Your task to perform on an android device: Do I have any events this weekend? Image 0: 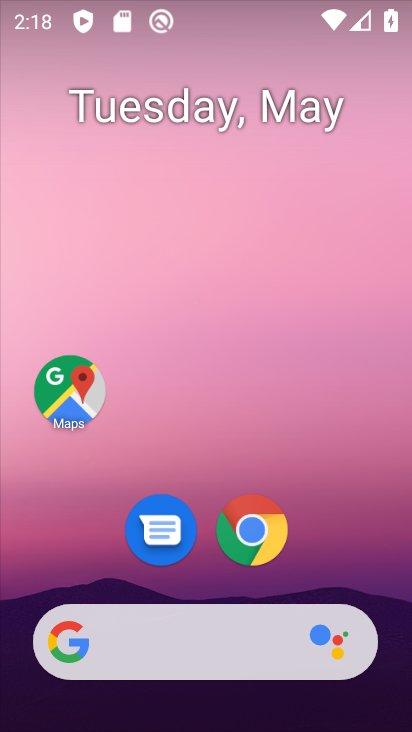
Step 0: drag from (65, 559) to (278, 163)
Your task to perform on an android device: Do I have any events this weekend? Image 1: 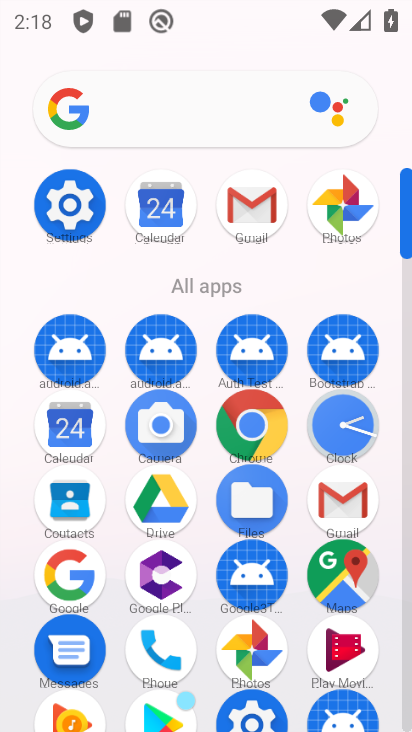
Step 1: click (73, 431)
Your task to perform on an android device: Do I have any events this weekend? Image 2: 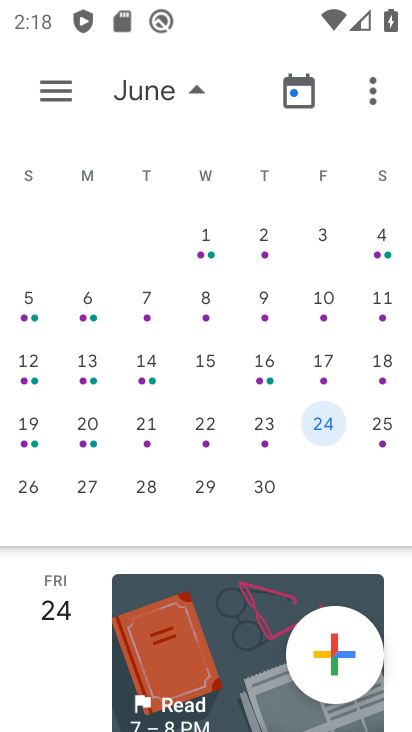
Step 2: drag from (183, 342) to (393, 353)
Your task to perform on an android device: Do I have any events this weekend? Image 3: 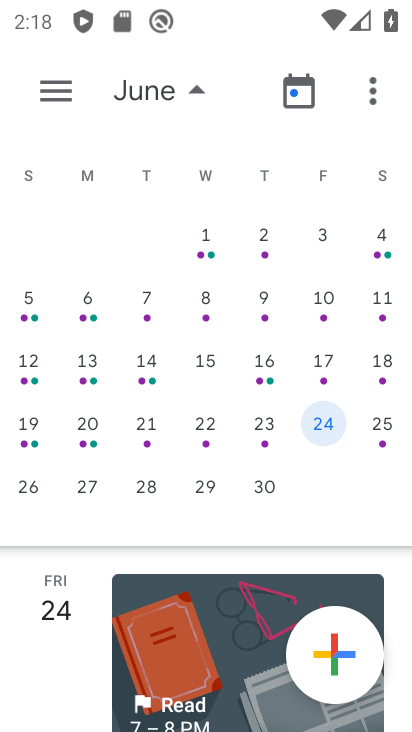
Step 3: drag from (94, 352) to (398, 354)
Your task to perform on an android device: Do I have any events this weekend? Image 4: 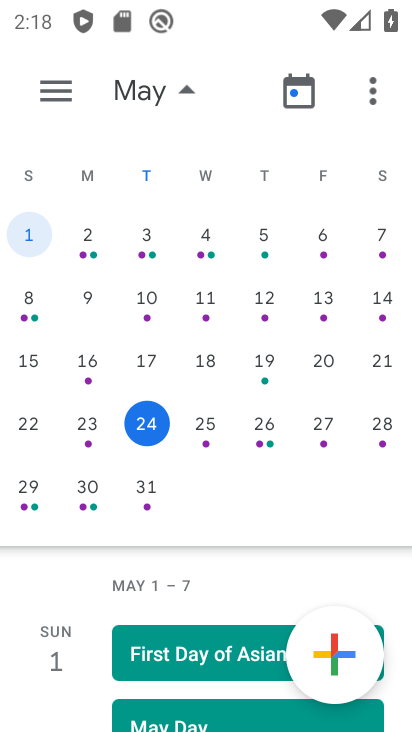
Step 4: click (397, 419)
Your task to perform on an android device: Do I have any events this weekend? Image 5: 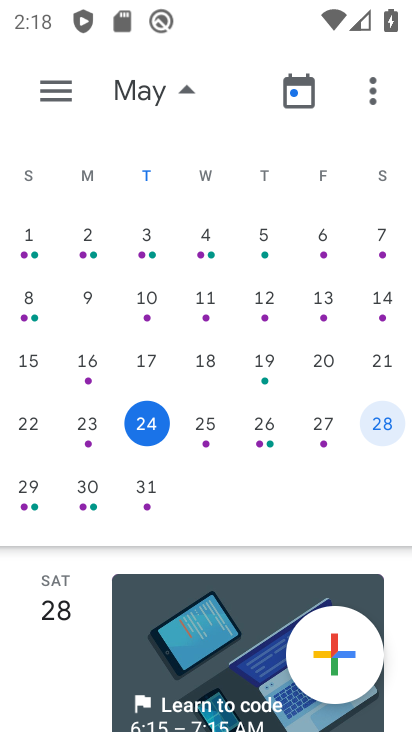
Step 5: click (37, 502)
Your task to perform on an android device: Do I have any events this weekend? Image 6: 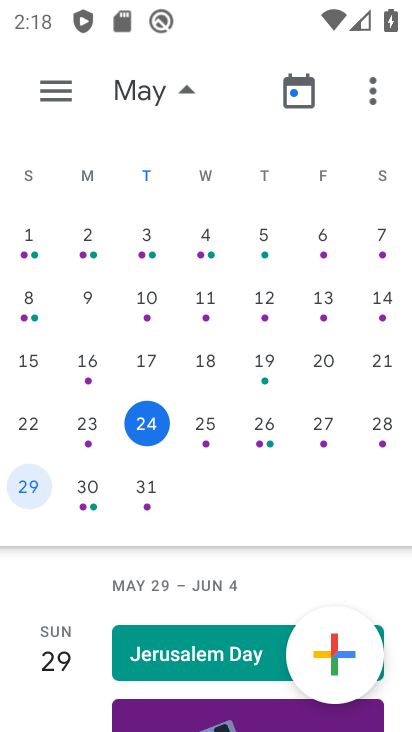
Step 6: task complete